Your task to perform on an android device: turn off data saver in the chrome app Image 0: 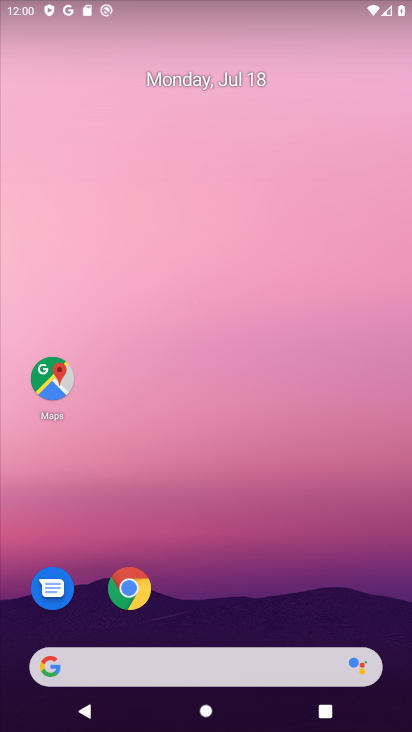
Step 0: click (132, 585)
Your task to perform on an android device: turn off data saver in the chrome app Image 1: 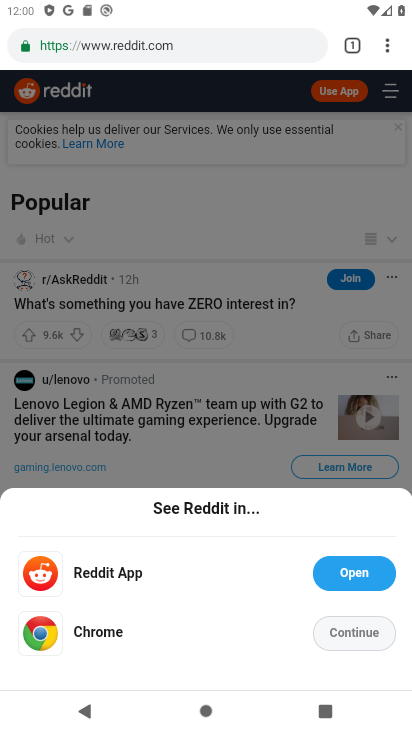
Step 1: click (384, 51)
Your task to perform on an android device: turn off data saver in the chrome app Image 2: 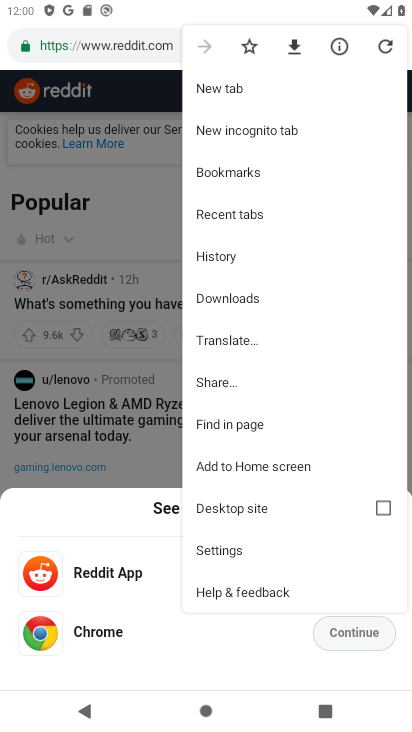
Step 2: click (226, 556)
Your task to perform on an android device: turn off data saver in the chrome app Image 3: 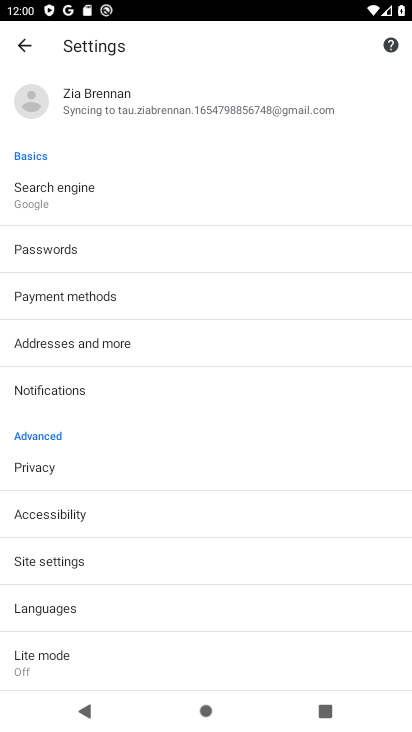
Step 3: click (72, 650)
Your task to perform on an android device: turn off data saver in the chrome app Image 4: 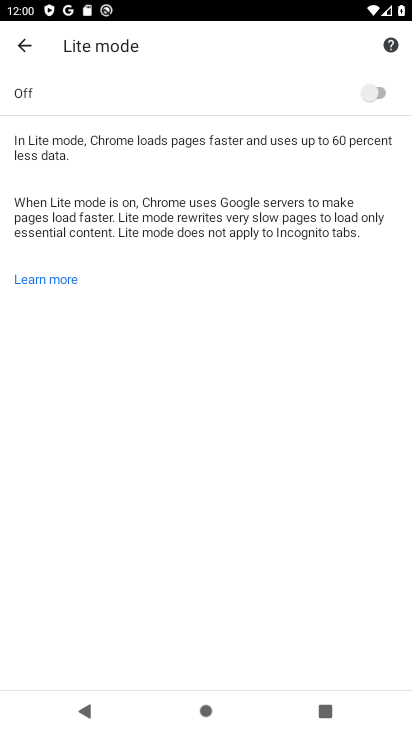
Step 4: task complete